Your task to perform on an android device: turn off smart reply in the gmail app Image 0: 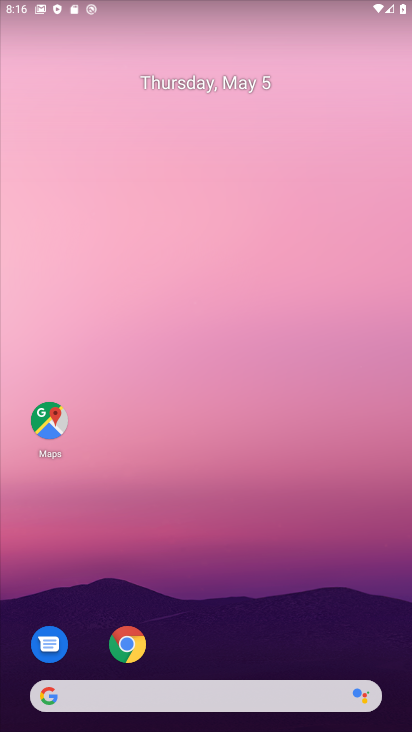
Step 0: drag from (317, 500) to (329, 81)
Your task to perform on an android device: turn off smart reply in the gmail app Image 1: 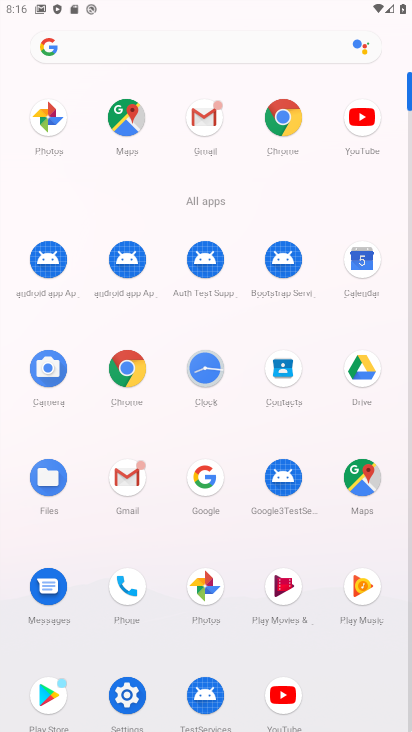
Step 1: click (191, 110)
Your task to perform on an android device: turn off smart reply in the gmail app Image 2: 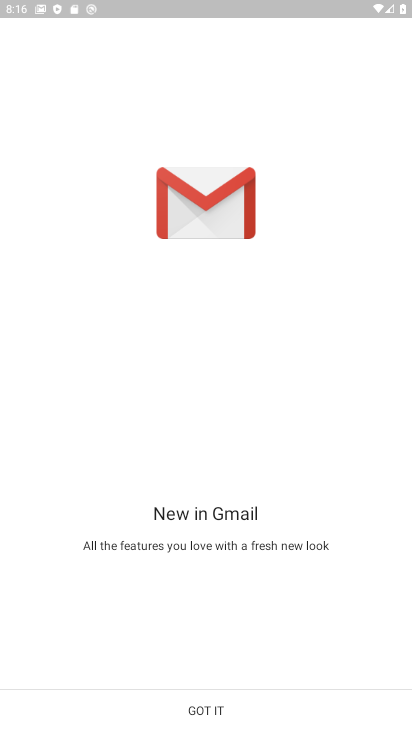
Step 2: click (198, 708)
Your task to perform on an android device: turn off smart reply in the gmail app Image 3: 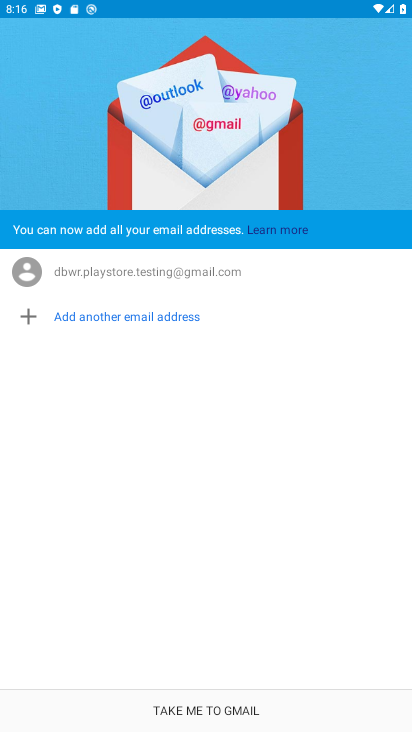
Step 3: click (195, 716)
Your task to perform on an android device: turn off smart reply in the gmail app Image 4: 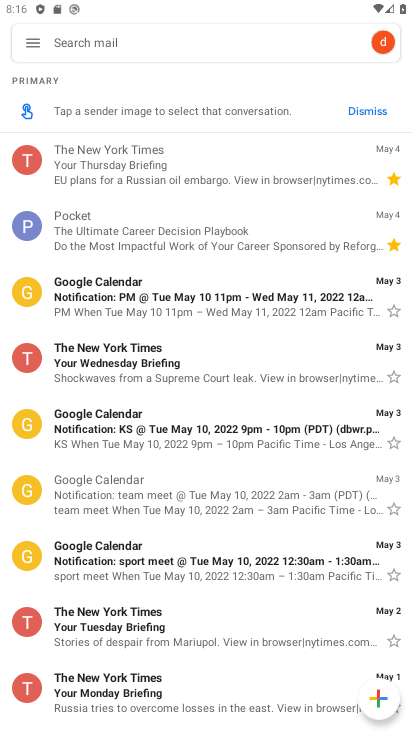
Step 4: click (36, 48)
Your task to perform on an android device: turn off smart reply in the gmail app Image 5: 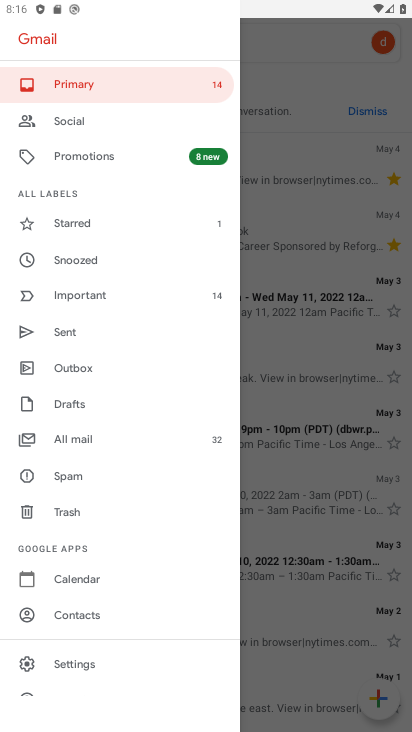
Step 5: drag from (130, 616) to (178, 277)
Your task to perform on an android device: turn off smart reply in the gmail app Image 6: 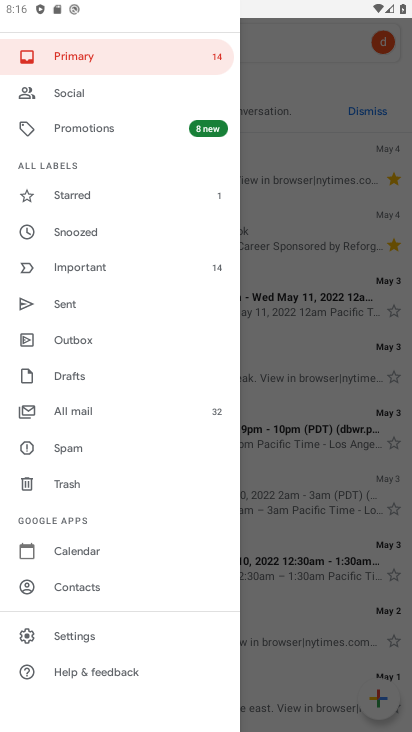
Step 6: click (81, 628)
Your task to perform on an android device: turn off smart reply in the gmail app Image 7: 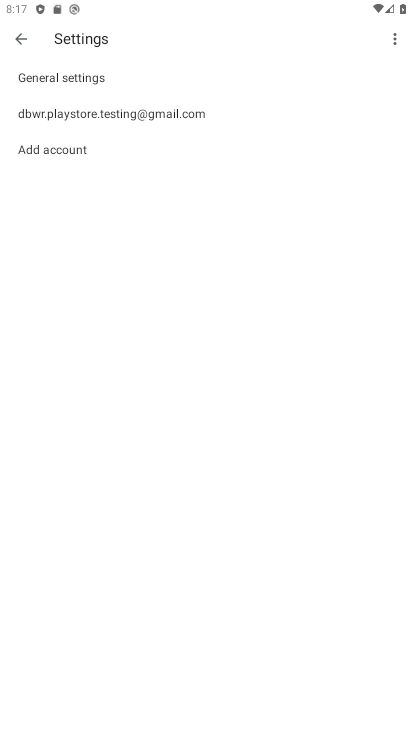
Step 7: click (33, 113)
Your task to perform on an android device: turn off smart reply in the gmail app Image 8: 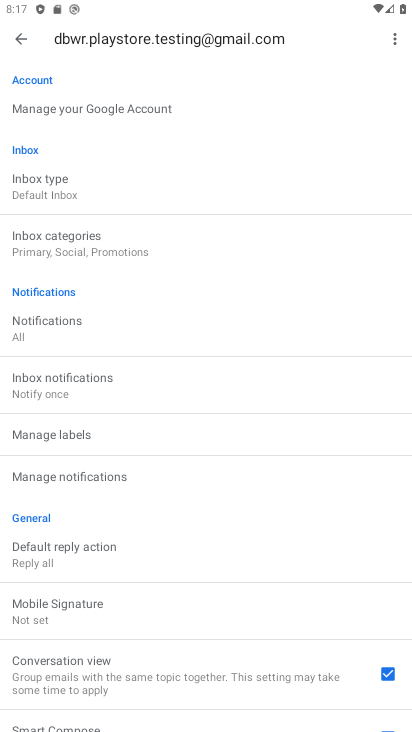
Step 8: drag from (106, 609) to (134, 205)
Your task to perform on an android device: turn off smart reply in the gmail app Image 9: 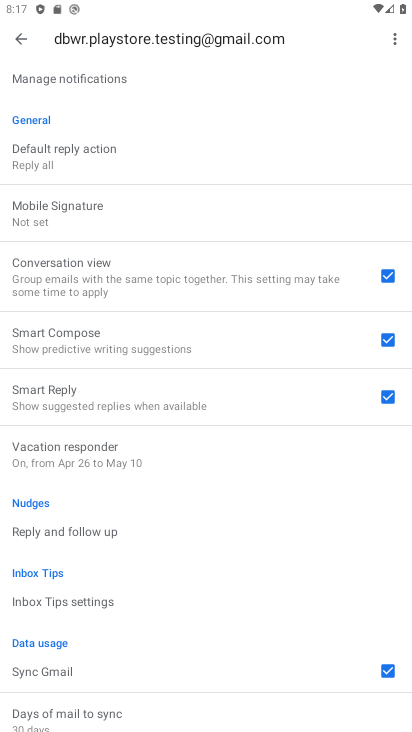
Step 9: click (388, 402)
Your task to perform on an android device: turn off smart reply in the gmail app Image 10: 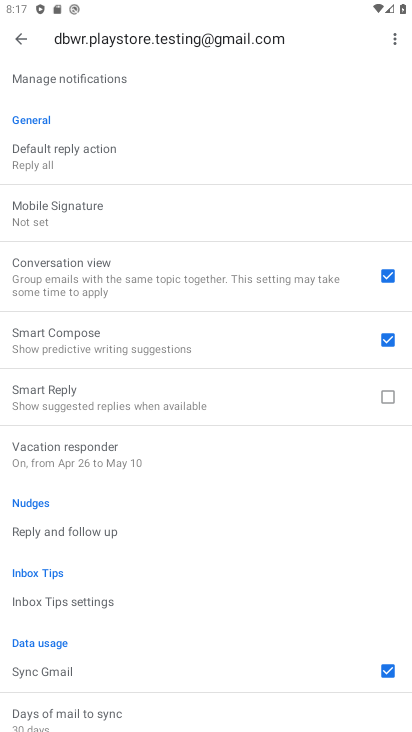
Step 10: task complete